Your task to perform on an android device: open sync settings in chrome Image 0: 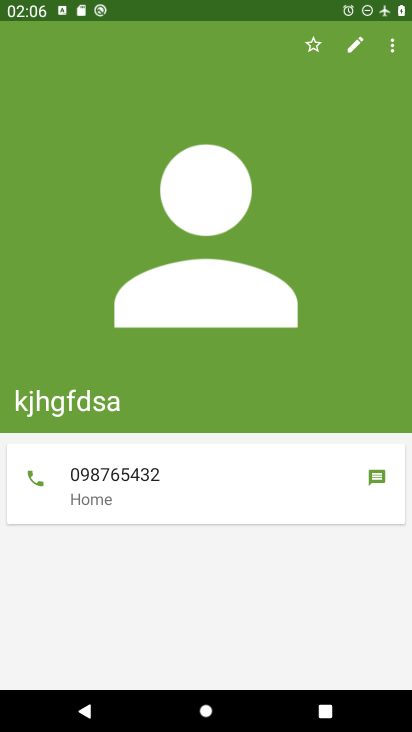
Step 0: press home button
Your task to perform on an android device: open sync settings in chrome Image 1: 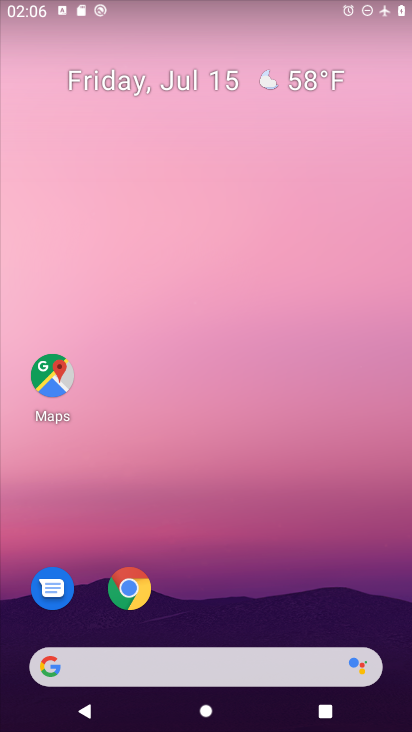
Step 1: click (126, 590)
Your task to perform on an android device: open sync settings in chrome Image 2: 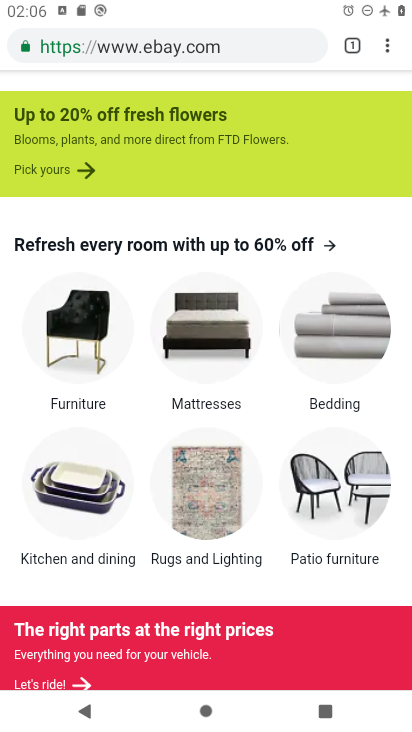
Step 2: click (387, 48)
Your task to perform on an android device: open sync settings in chrome Image 3: 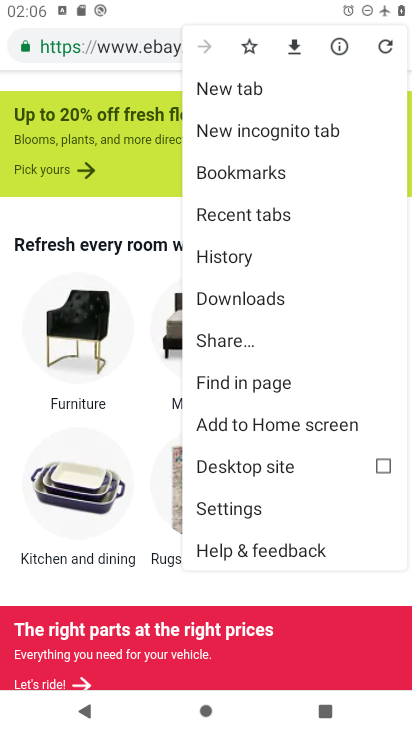
Step 3: click (247, 504)
Your task to perform on an android device: open sync settings in chrome Image 4: 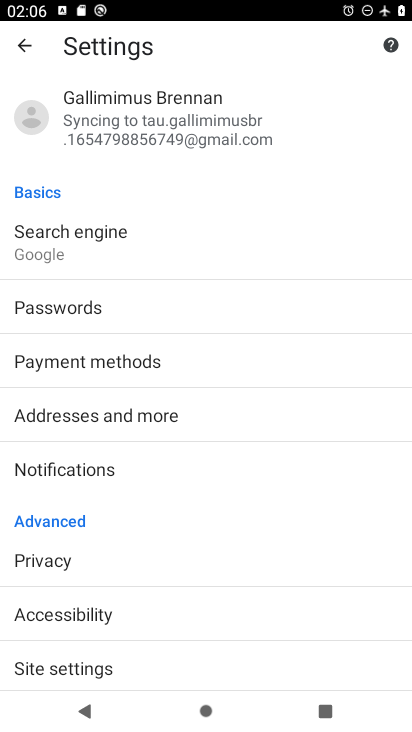
Step 4: click (101, 112)
Your task to perform on an android device: open sync settings in chrome Image 5: 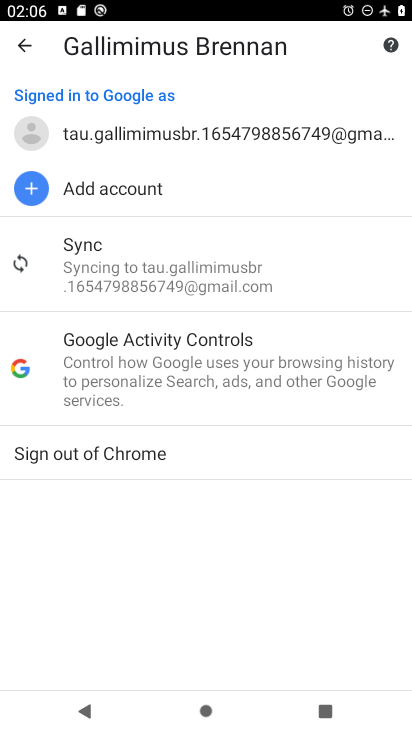
Step 5: click (83, 250)
Your task to perform on an android device: open sync settings in chrome Image 6: 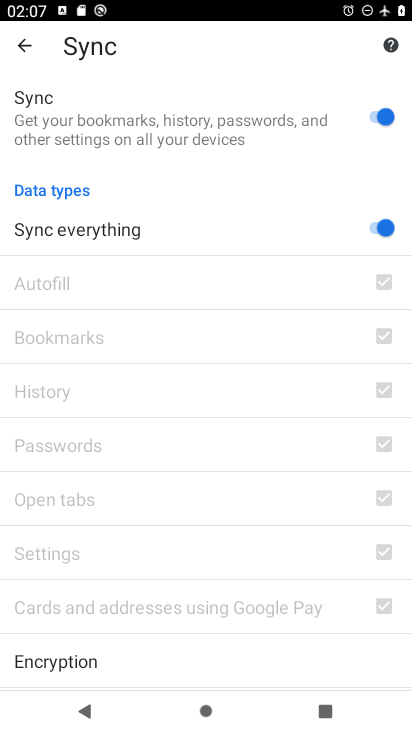
Step 6: task complete